Your task to perform on an android device: check the backup settings in the google photos Image 0: 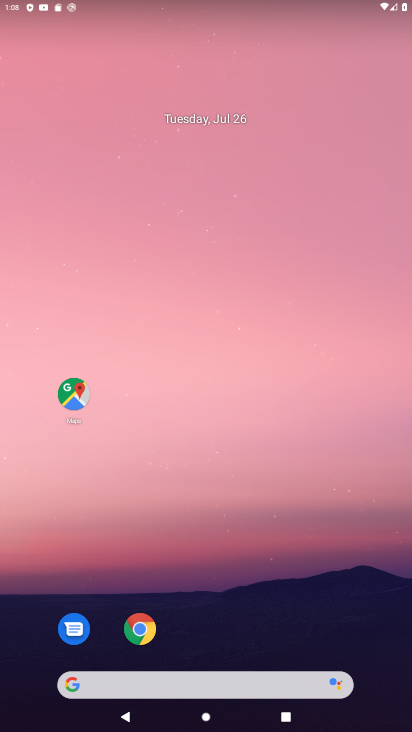
Step 0: drag from (375, 691) to (319, 110)
Your task to perform on an android device: check the backup settings in the google photos Image 1: 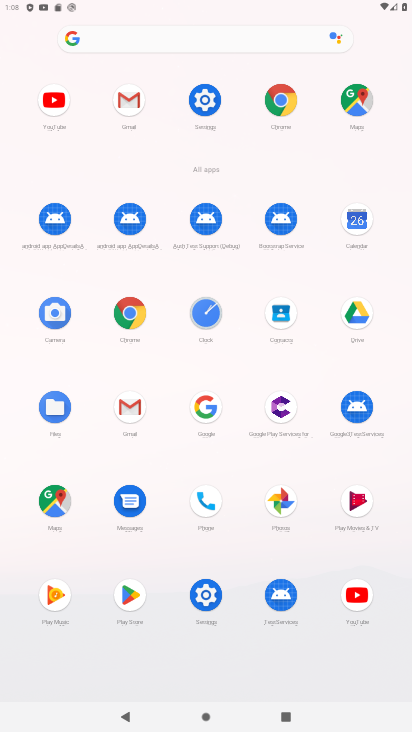
Step 1: click (281, 489)
Your task to perform on an android device: check the backup settings in the google photos Image 2: 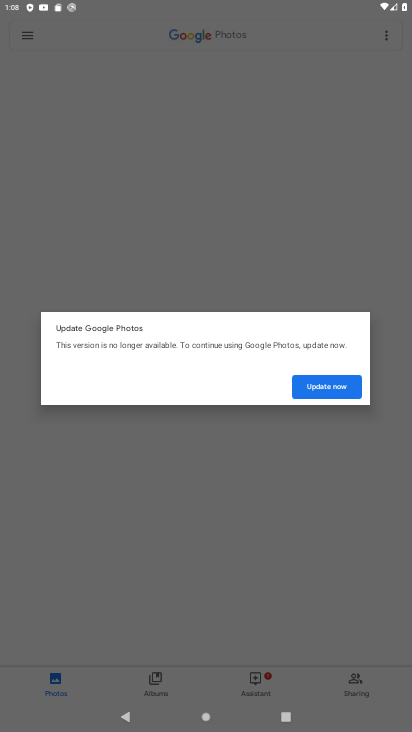
Step 2: click (330, 390)
Your task to perform on an android device: check the backup settings in the google photos Image 3: 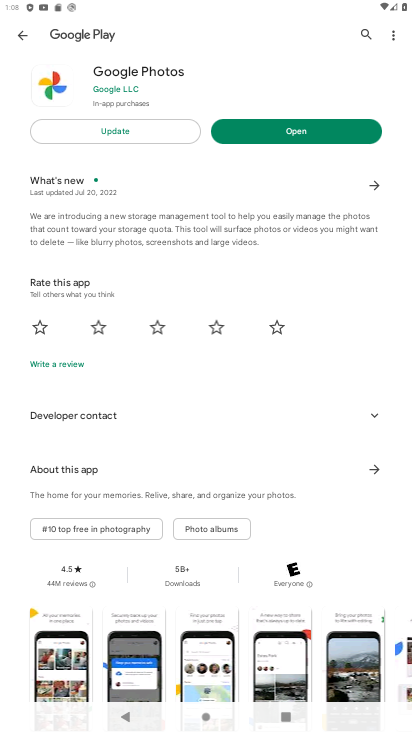
Step 3: click (109, 128)
Your task to perform on an android device: check the backup settings in the google photos Image 4: 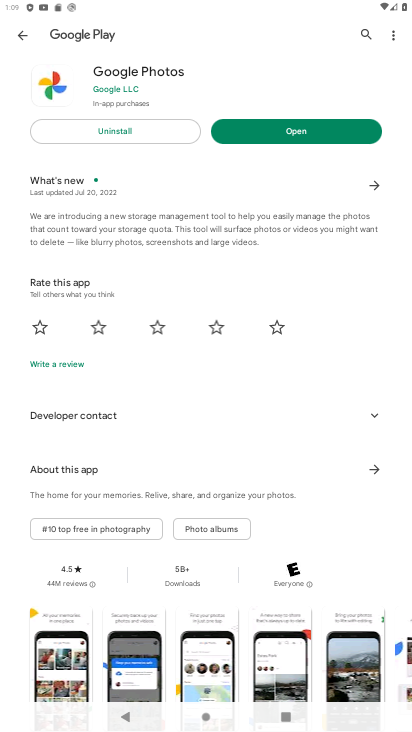
Step 4: click (254, 133)
Your task to perform on an android device: check the backup settings in the google photos Image 5: 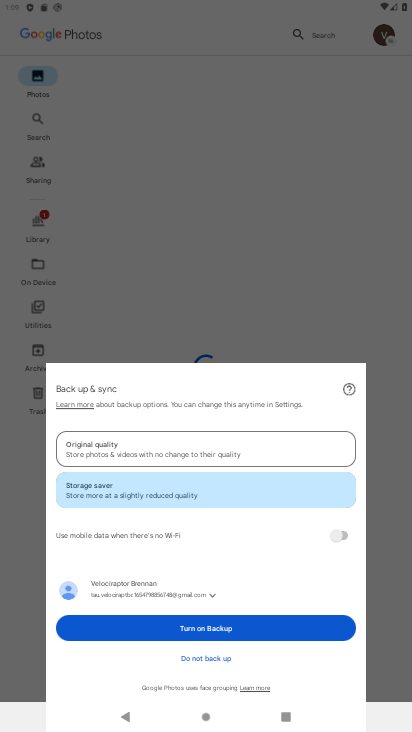
Step 5: click (219, 636)
Your task to perform on an android device: check the backup settings in the google photos Image 6: 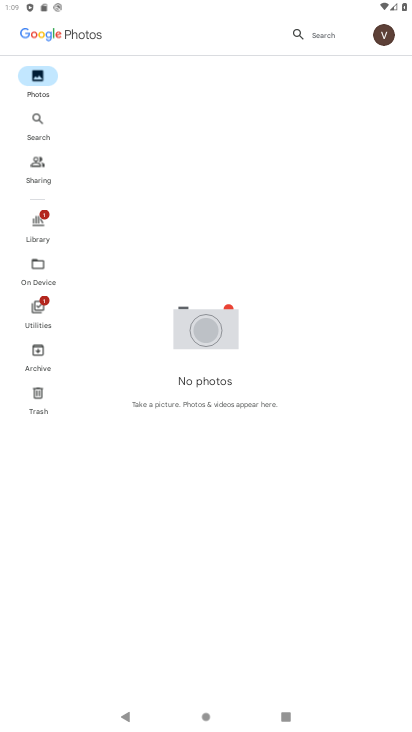
Step 6: task complete